Your task to perform on an android device: change keyboard looks Image 0: 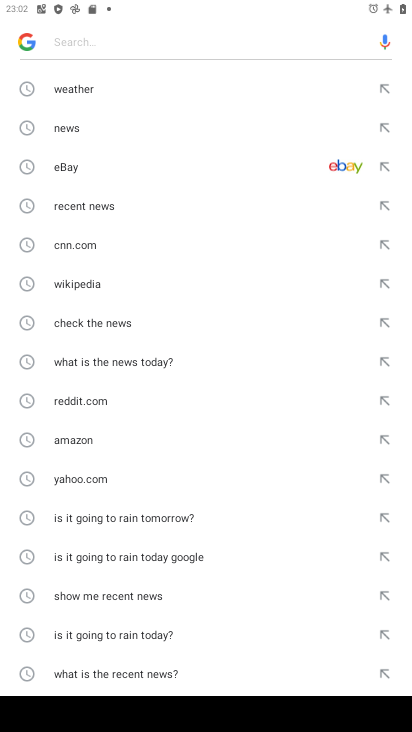
Step 0: press home button
Your task to perform on an android device: change keyboard looks Image 1: 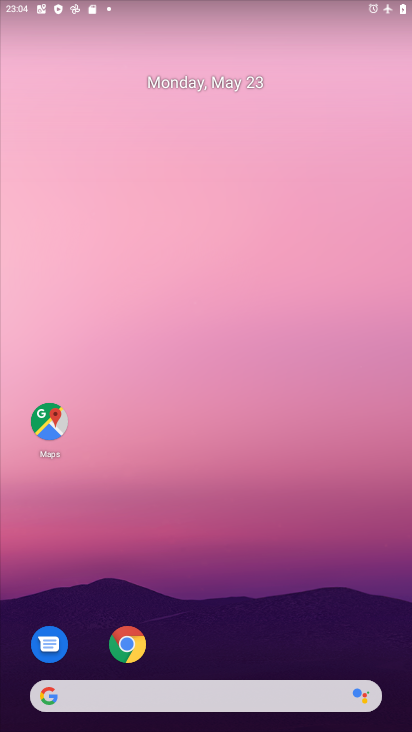
Step 1: click (176, 701)
Your task to perform on an android device: change keyboard looks Image 2: 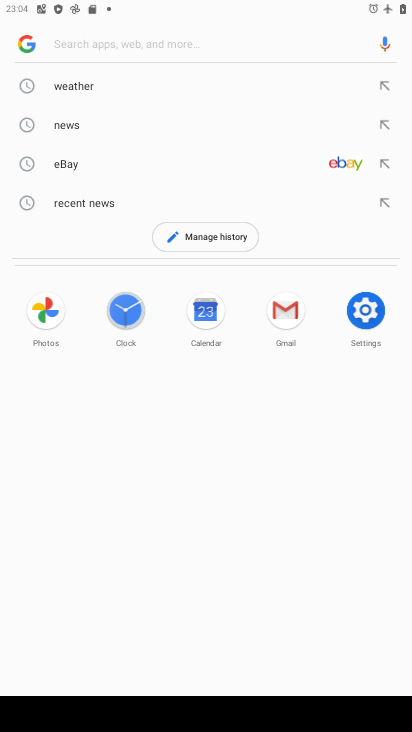
Step 2: press home button
Your task to perform on an android device: change keyboard looks Image 3: 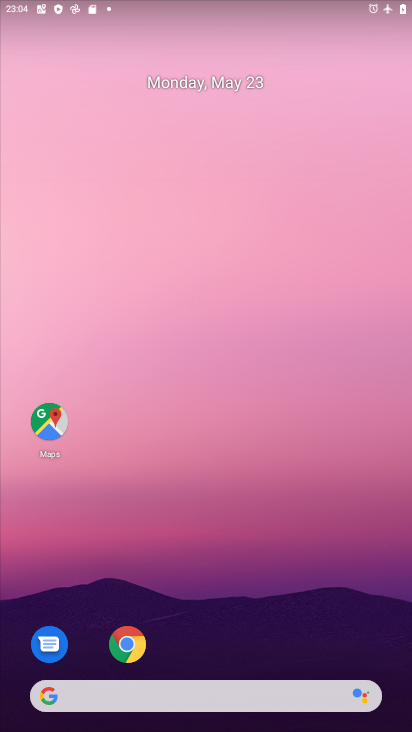
Step 3: drag from (252, 717) to (282, 51)
Your task to perform on an android device: change keyboard looks Image 4: 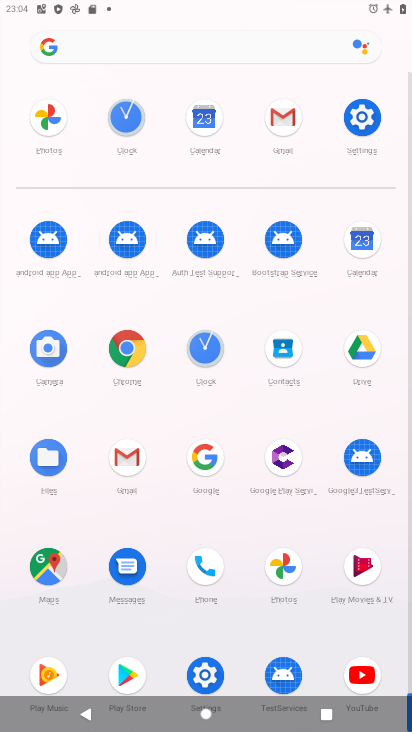
Step 4: click (362, 108)
Your task to perform on an android device: change keyboard looks Image 5: 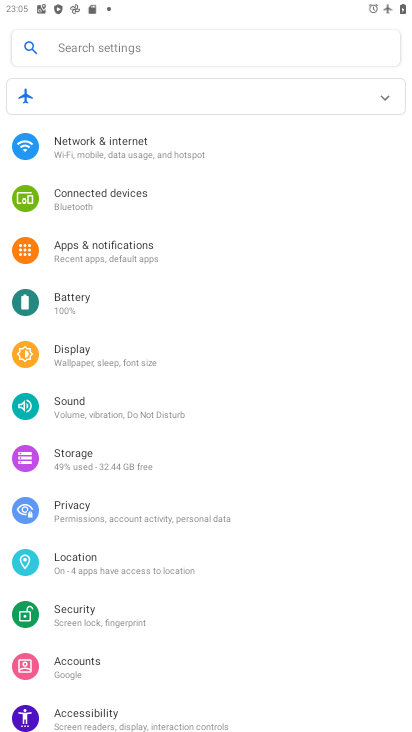
Step 5: drag from (219, 648) to (255, 59)
Your task to perform on an android device: change keyboard looks Image 6: 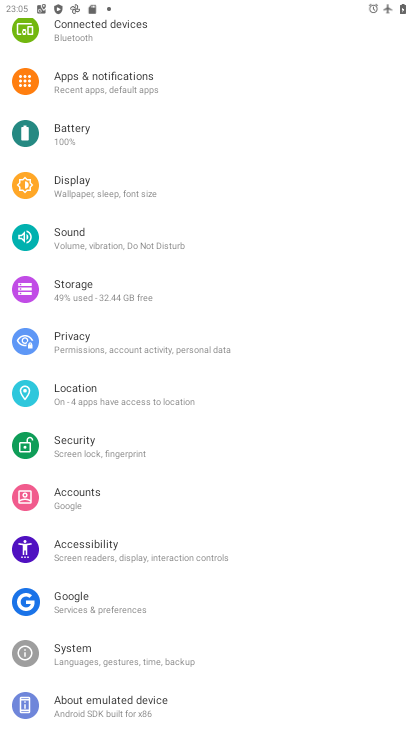
Step 6: drag from (269, 677) to (321, 51)
Your task to perform on an android device: change keyboard looks Image 7: 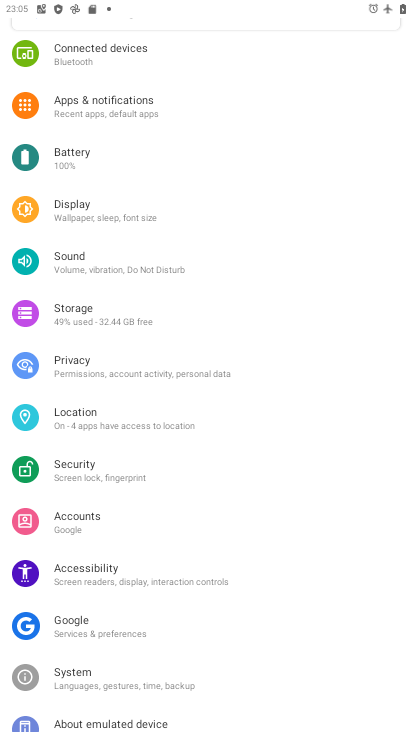
Step 7: click (193, 665)
Your task to perform on an android device: change keyboard looks Image 8: 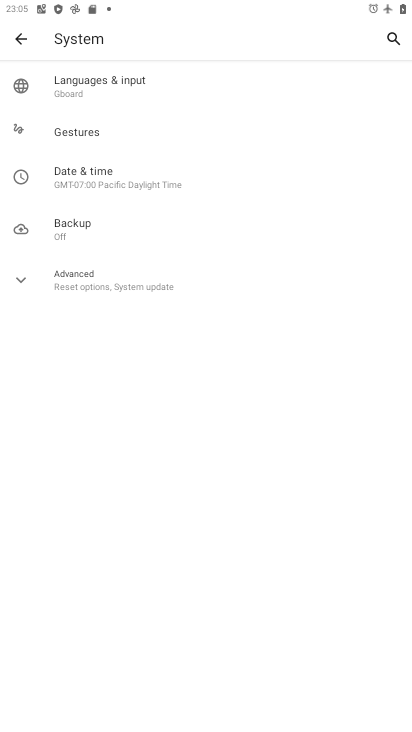
Step 8: click (136, 85)
Your task to perform on an android device: change keyboard looks Image 9: 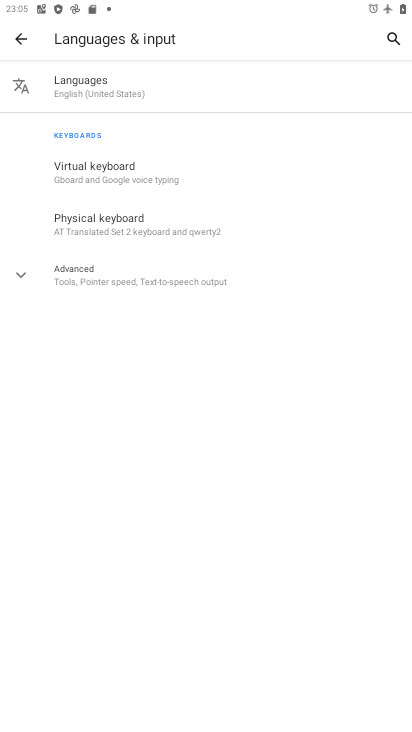
Step 9: click (189, 158)
Your task to perform on an android device: change keyboard looks Image 10: 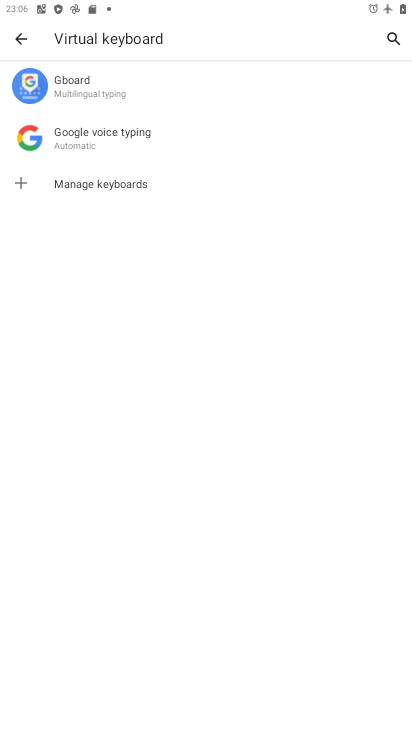
Step 10: click (126, 76)
Your task to perform on an android device: change keyboard looks Image 11: 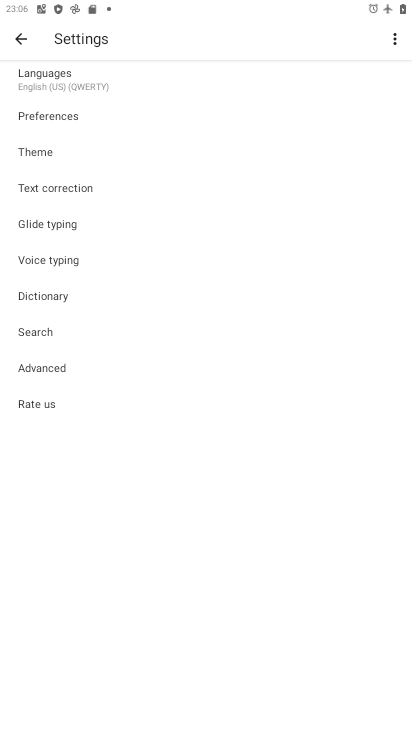
Step 11: click (54, 153)
Your task to perform on an android device: change keyboard looks Image 12: 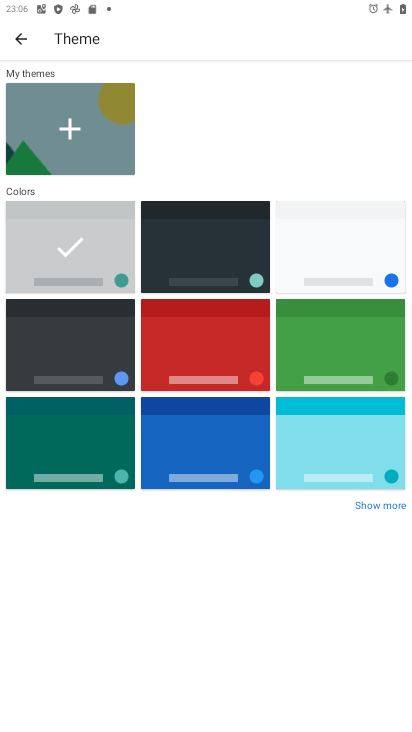
Step 12: click (186, 366)
Your task to perform on an android device: change keyboard looks Image 13: 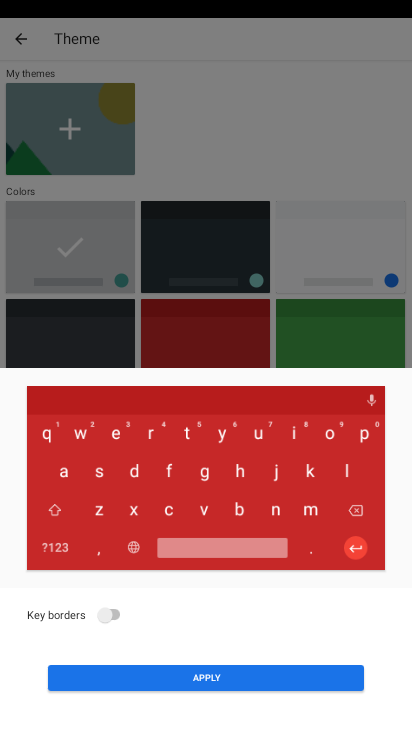
Step 13: click (304, 681)
Your task to perform on an android device: change keyboard looks Image 14: 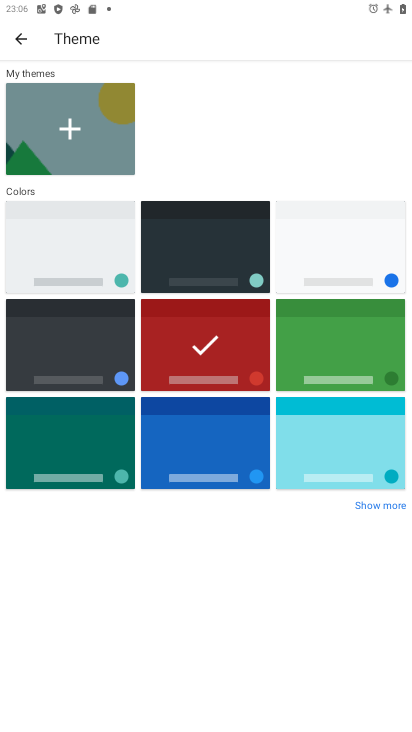
Step 14: task complete